Your task to perform on an android device: Go to eBay Image 0: 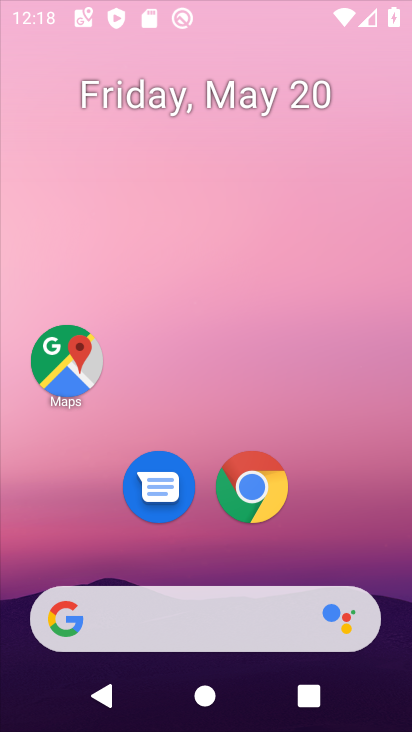
Step 0: click (279, 113)
Your task to perform on an android device: Go to eBay Image 1: 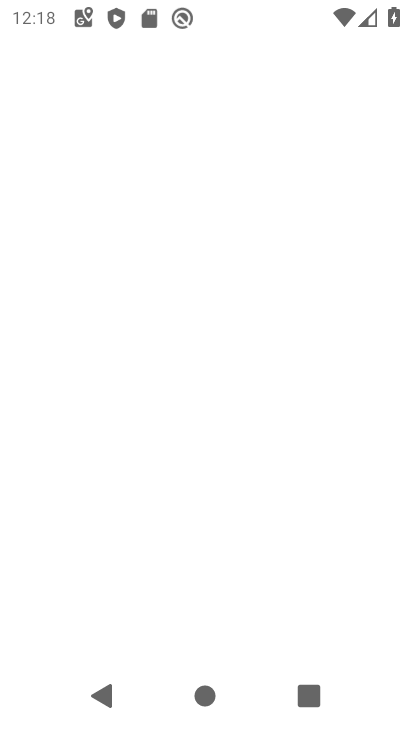
Step 1: press back button
Your task to perform on an android device: Go to eBay Image 2: 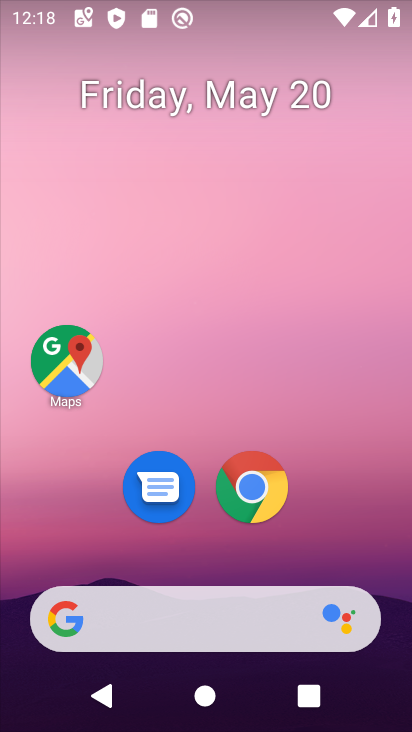
Step 2: click (253, 491)
Your task to perform on an android device: Go to eBay Image 3: 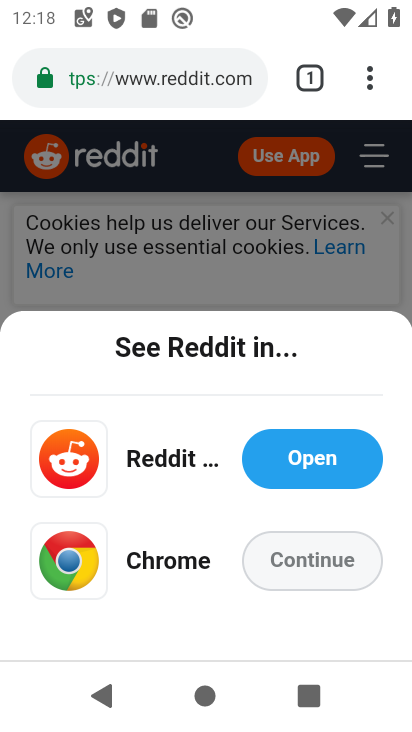
Step 3: click (304, 69)
Your task to perform on an android device: Go to eBay Image 4: 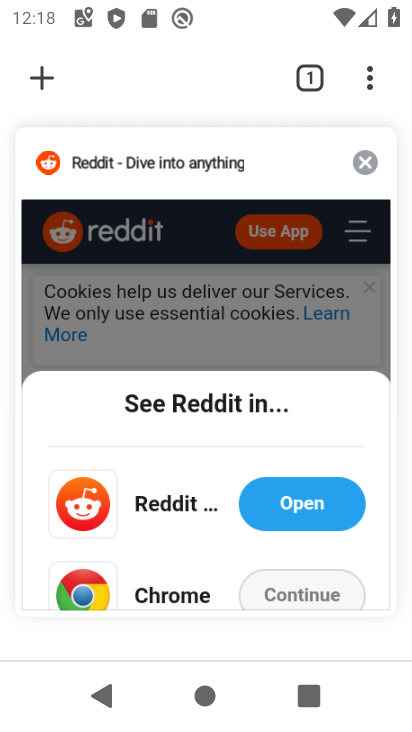
Step 4: click (42, 74)
Your task to perform on an android device: Go to eBay Image 5: 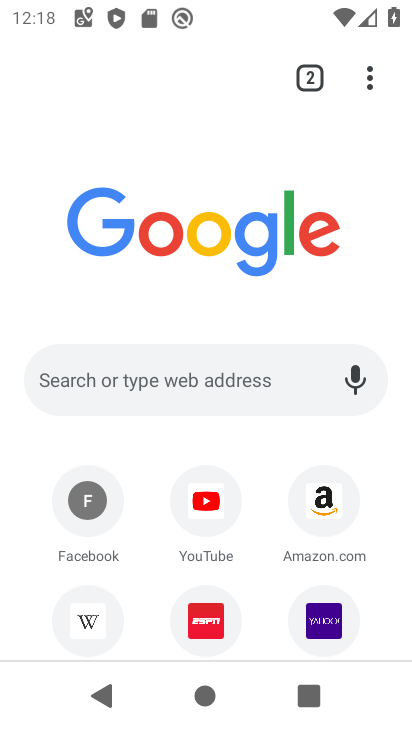
Step 5: drag from (170, 587) to (254, 268)
Your task to perform on an android device: Go to eBay Image 6: 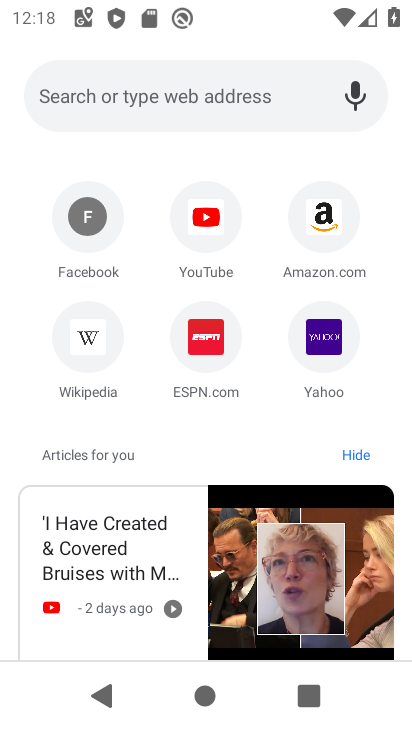
Step 6: click (92, 84)
Your task to perform on an android device: Go to eBay Image 7: 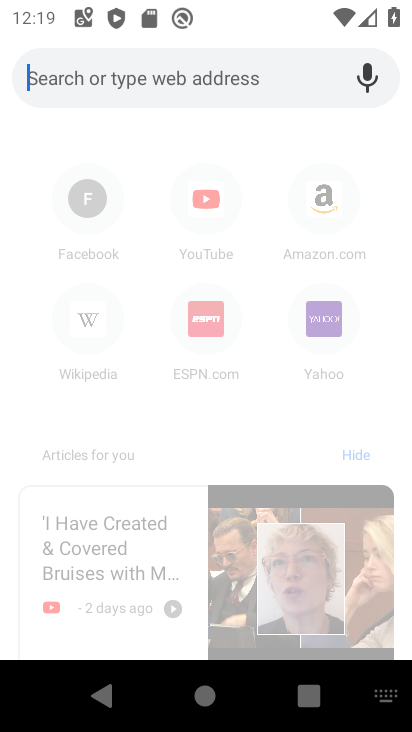
Step 7: type "ebay"
Your task to perform on an android device: Go to eBay Image 8: 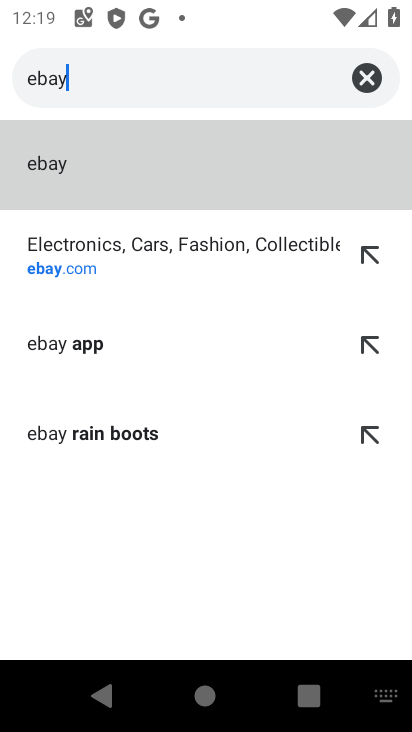
Step 8: click (152, 258)
Your task to perform on an android device: Go to eBay Image 9: 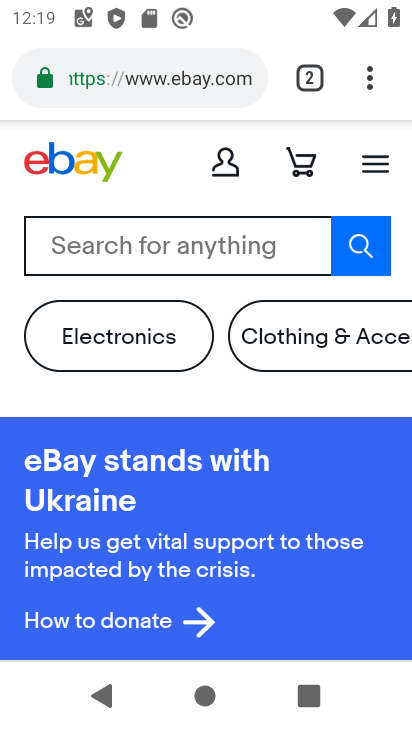
Step 9: task complete